Your task to perform on an android device: Open wifi settings Image 0: 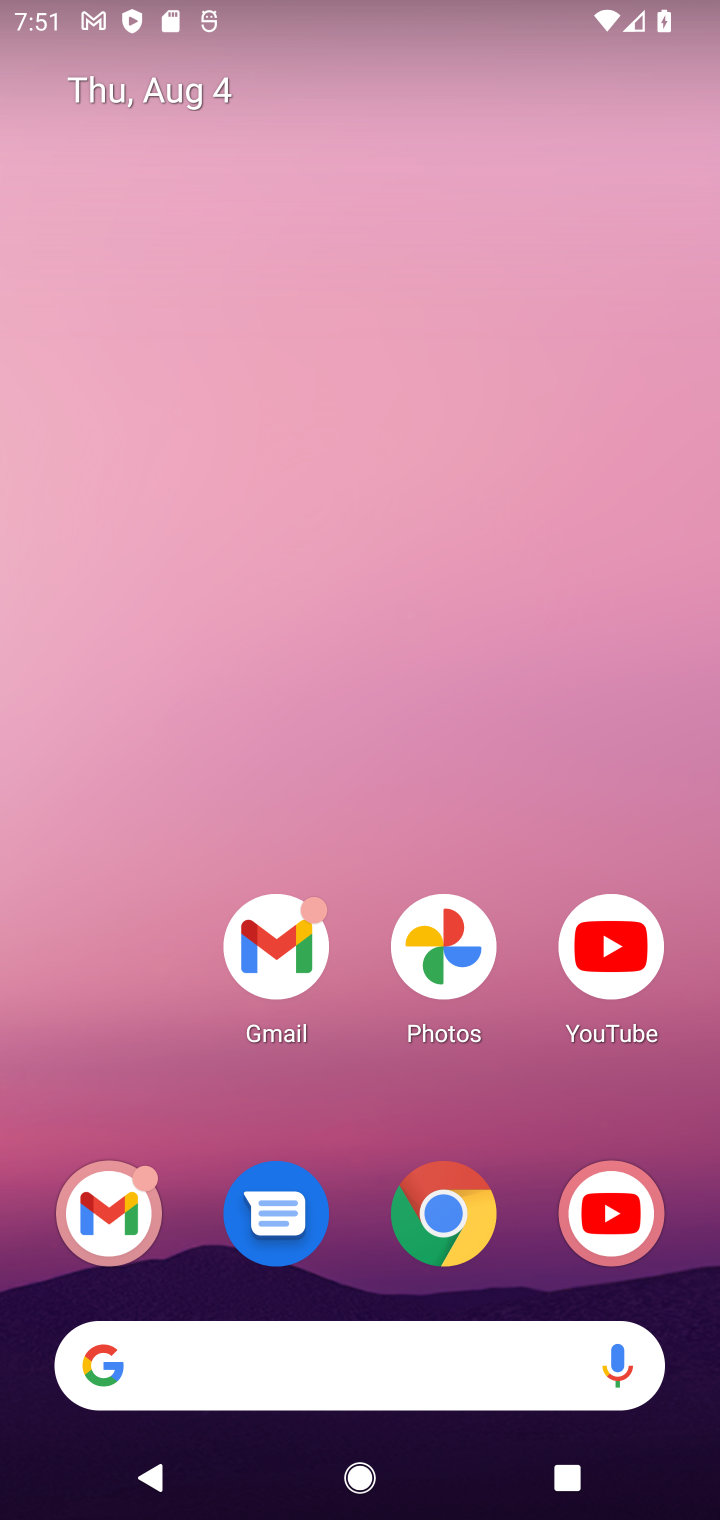
Step 0: drag from (365, 1272) to (469, 383)
Your task to perform on an android device: Open wifi settings Image 1: 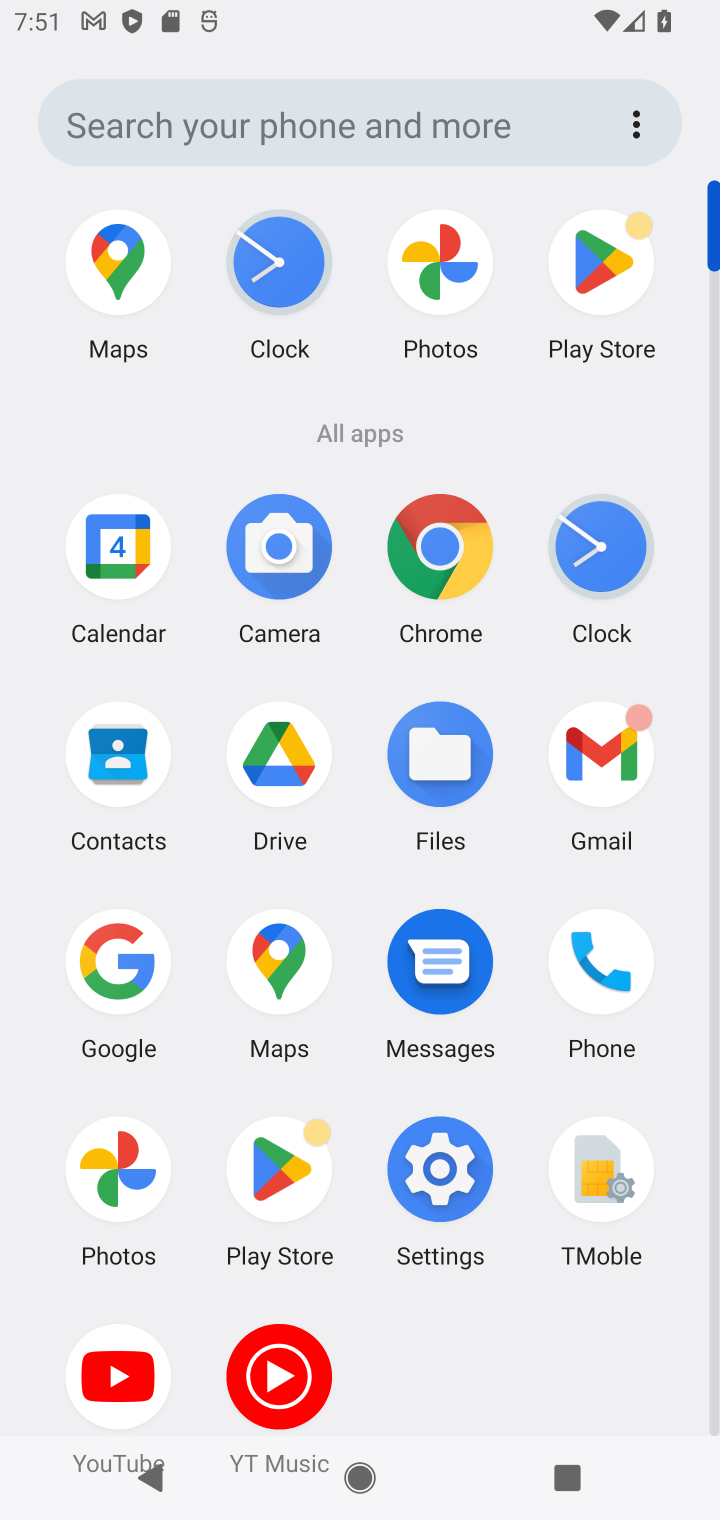
Step 1: click (450, 1198)
Your task to perform on an android device: Open wifi settings Image 2: 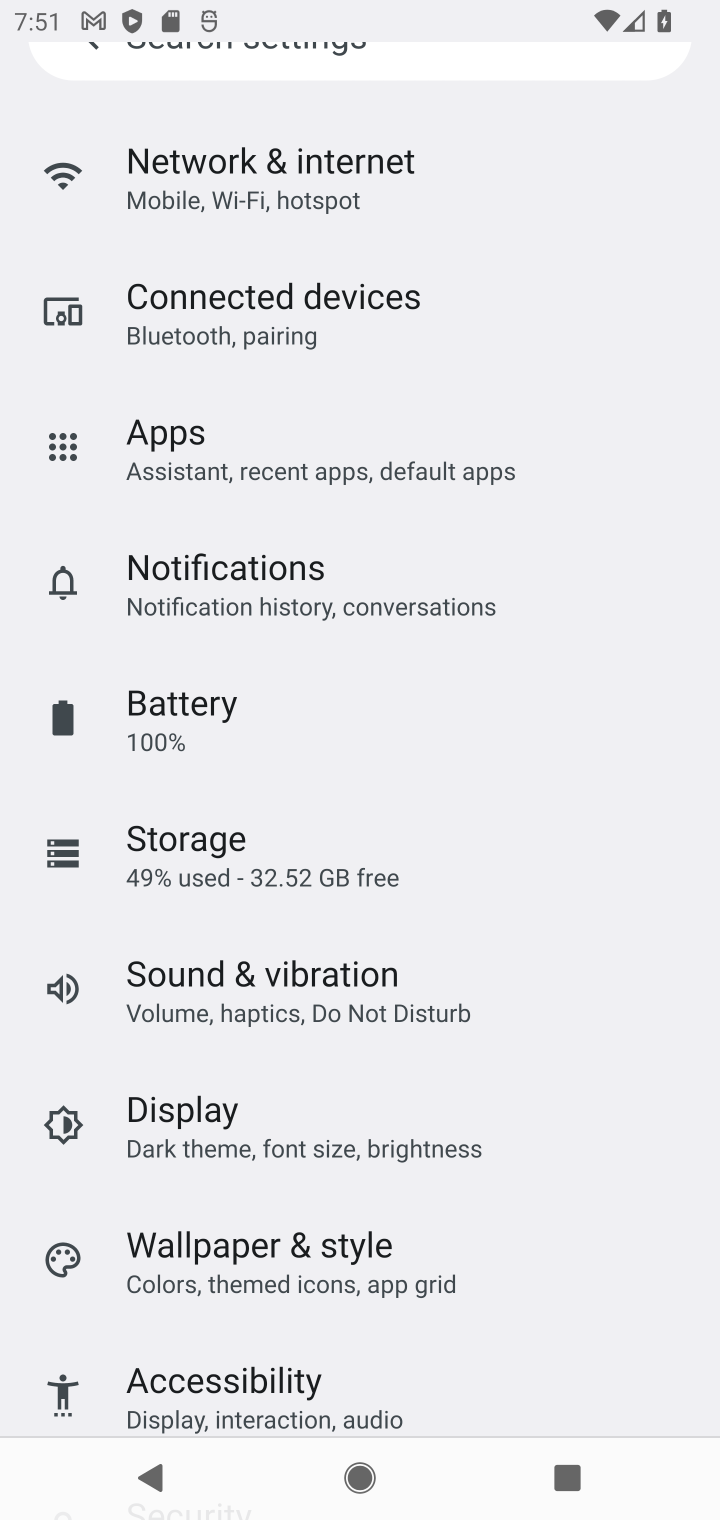
Step 2: click (345, 236)
Your task to perform on an android device: Open wifi settings Image 3: 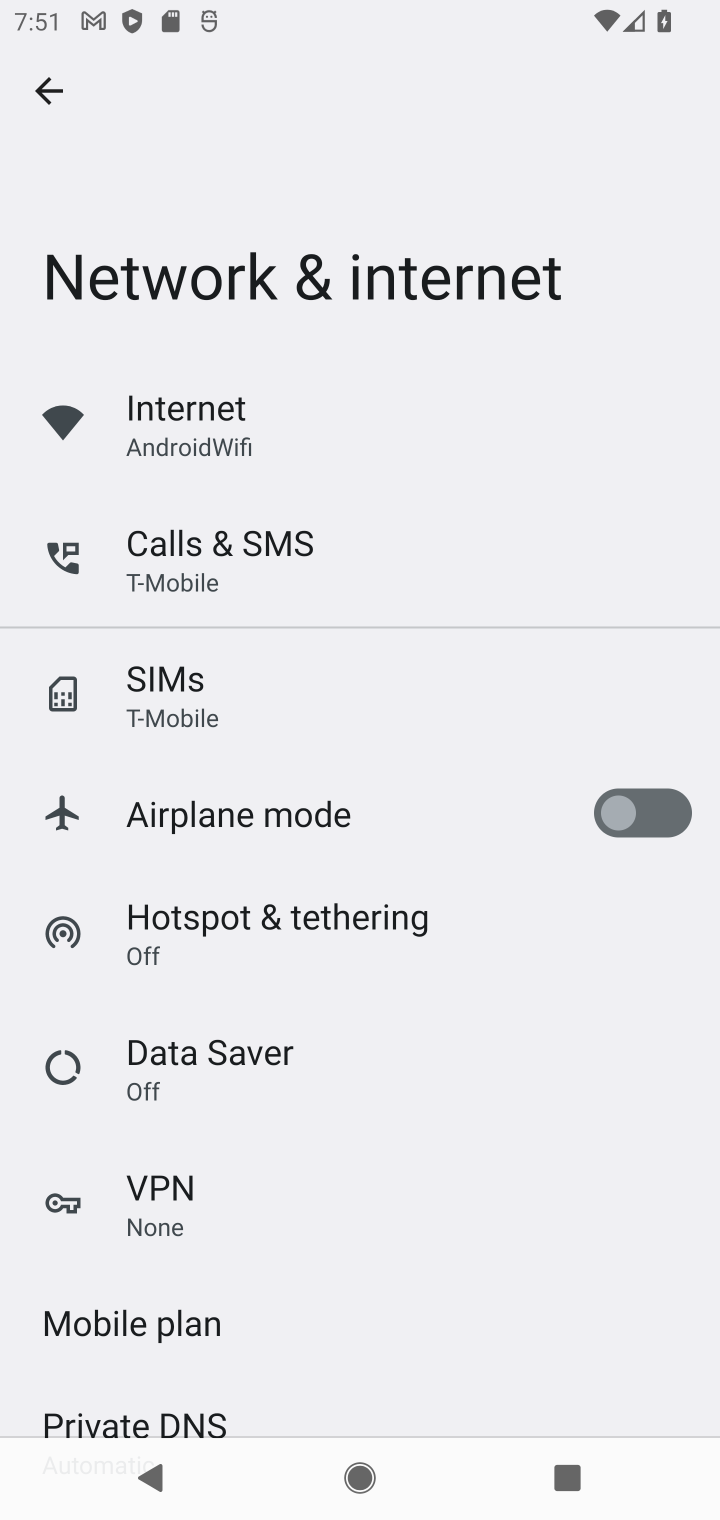
Step 3: click (345, 426)
Your task to perform on an android device: Open wifi settings Image 4: 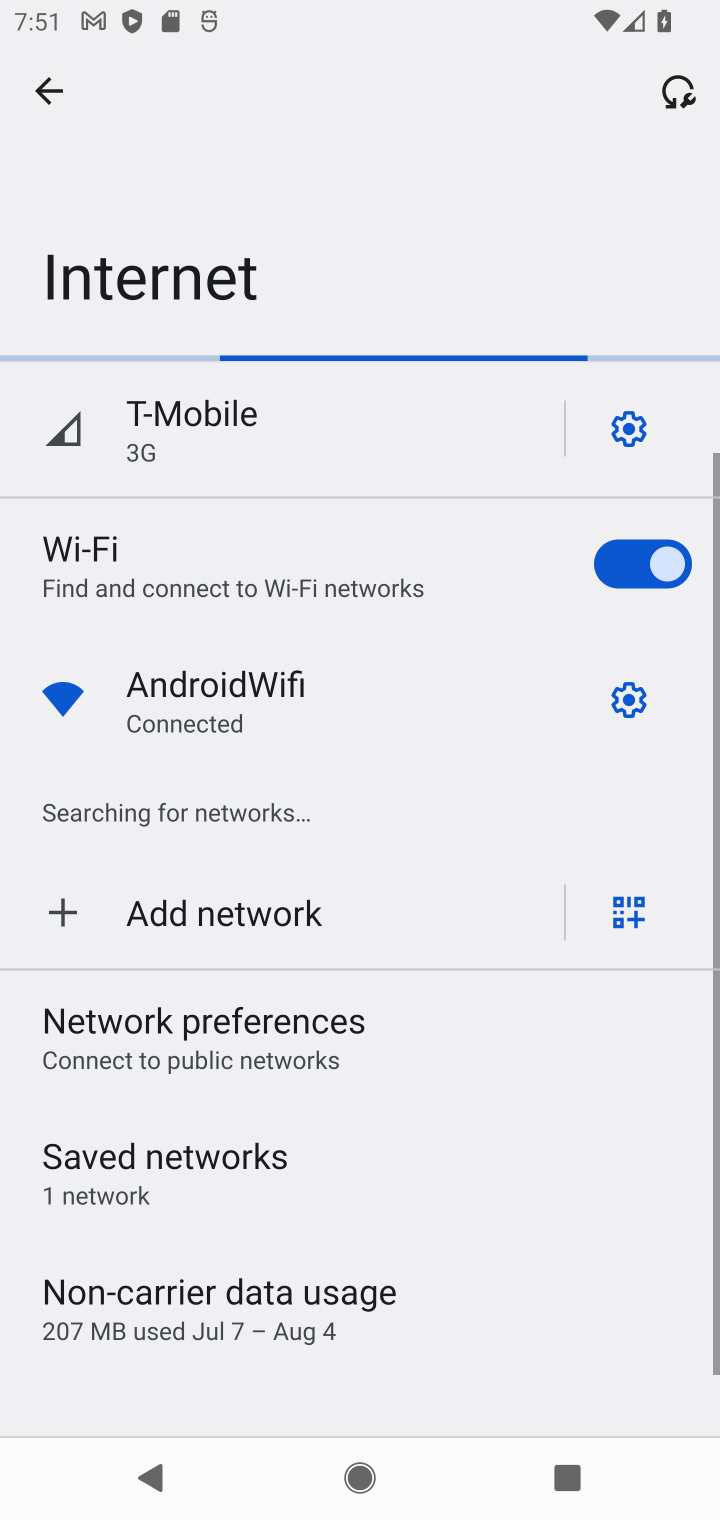
Step 4: task complete